Your task to perform on an android device: Go to wifi settings Image 0: 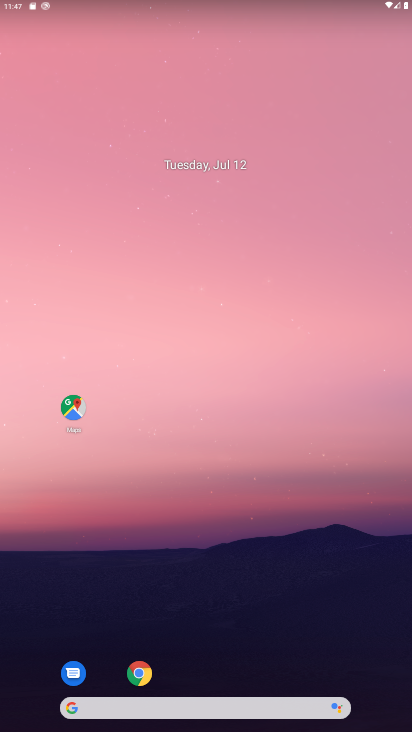
Step 0: drag from (257, 620) to (286, 48)
Your task to perform on an android device: Go to wifi settings Image 1: 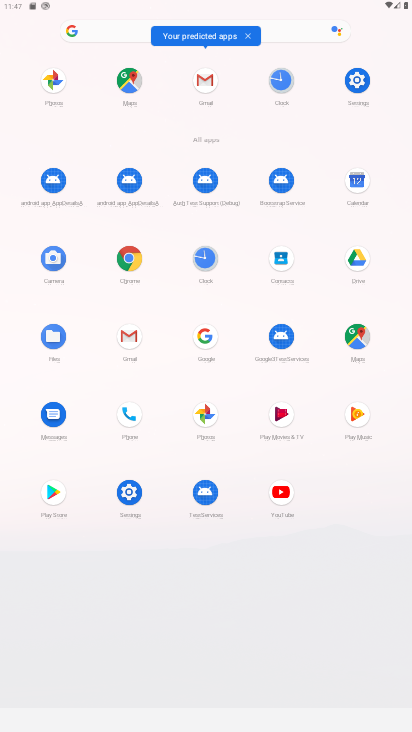
Step 1: click (359, 73)
Your task to perform on an android device: Go to wifi settings Image 2: 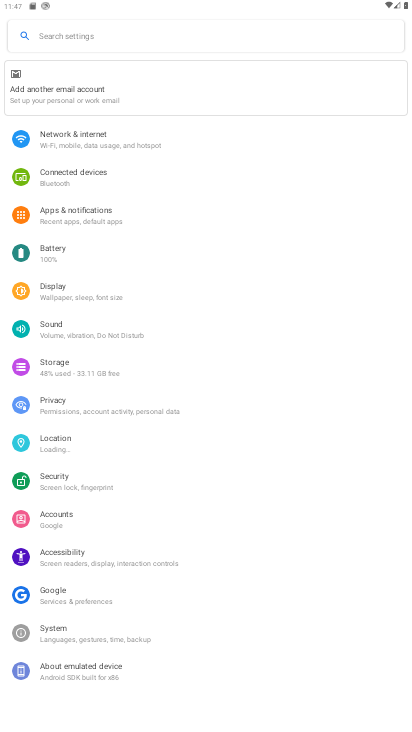
Step 2: click (150, 134)
Your task to perform on an android device: Go to wifi settings Image 3: 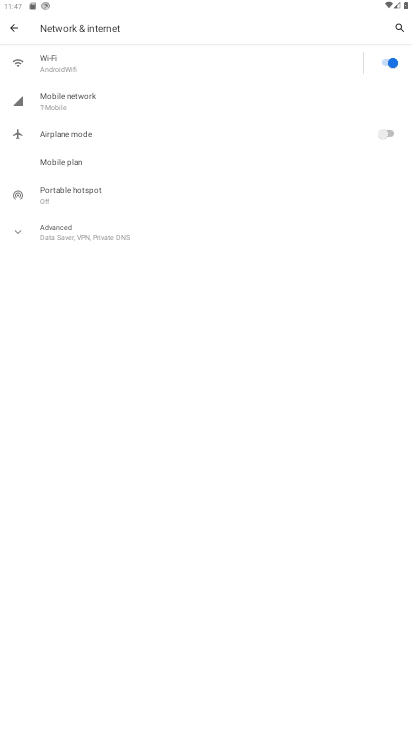
Step 3: click (50, 67)
Your task to perform on an android device: Go to wifi settings Image 4: 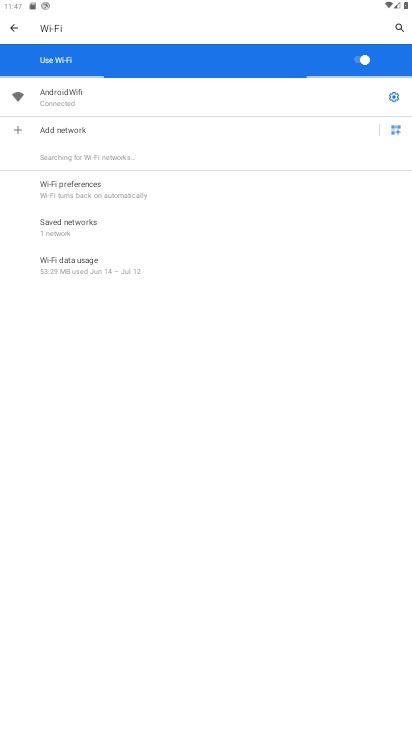
Step 4: task complete